Your task to perform on an android device: turn on wifi Image 0: 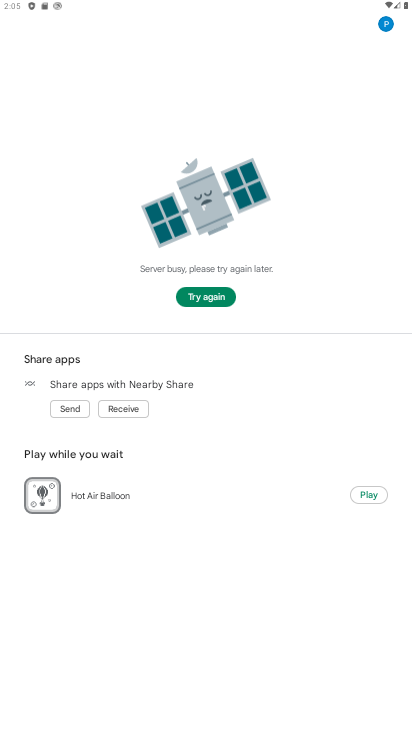
Step 0: press home button
Your task to perform on an android device: turn on wifi Image 1: 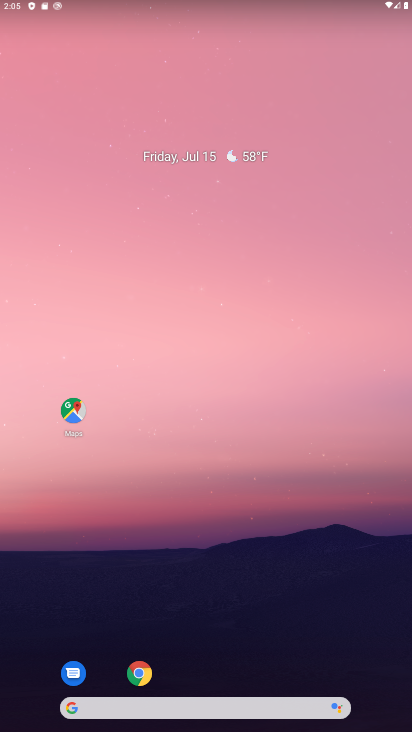
Step 1: drag from (355, 460) to (305, 37)
Your task to perform on an android device: turn on wifi Image 2: 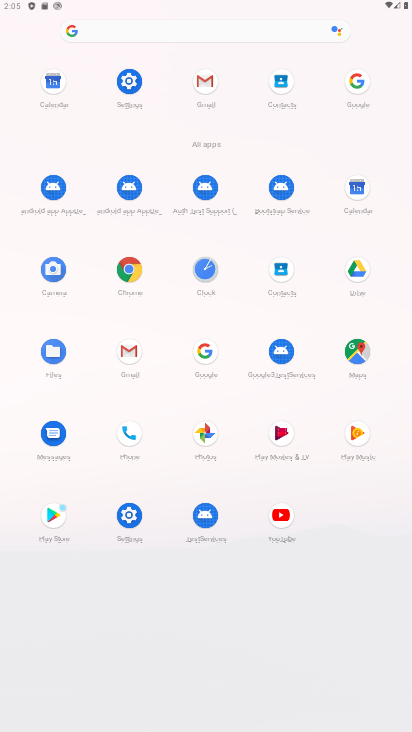
Step 2: click (126, 79)
Your task to perform on an android device: turn on wifi Image 3: 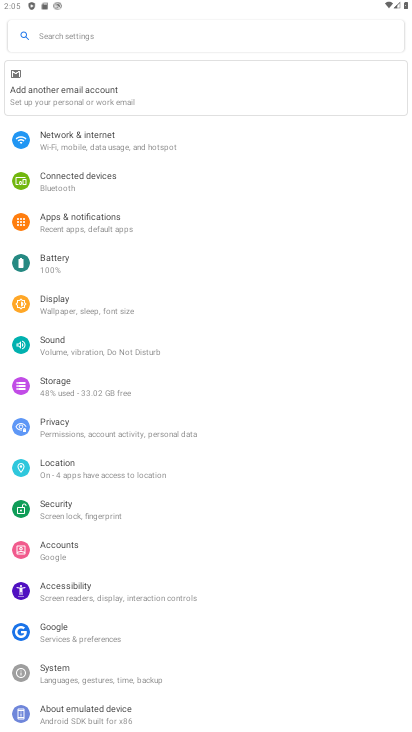
Step 3: click (72, 133)
Your task to perform on an android device: turn on wifi Image 4: 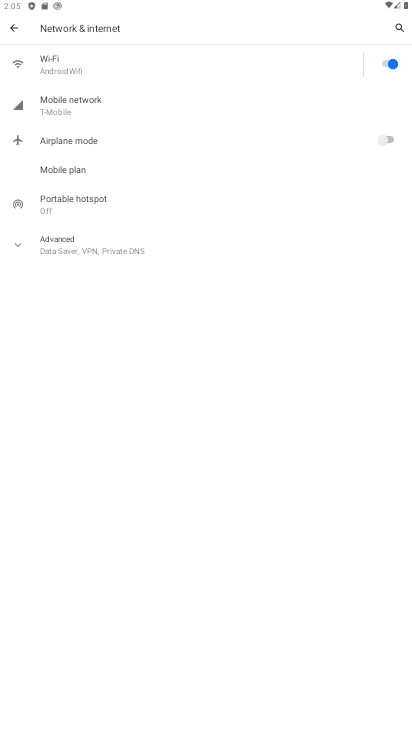
Step 4: task complete